Your task to perform on an android device: Go to CNN.com Image 0: 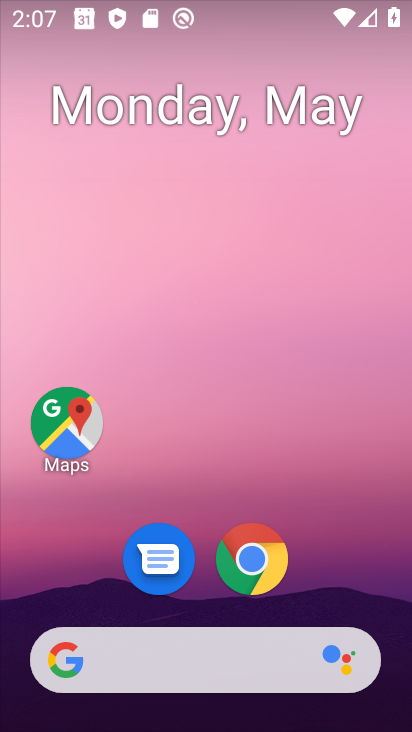
Step 0: click (260, 562)
Your task to perform on an android device: Go to CNN.com Image 1: 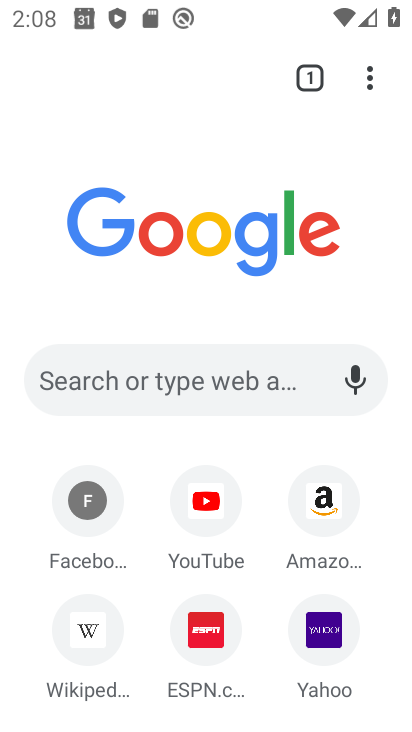
Step 1: click (121, 383)
Your task to perform on an android device: Go to CNN.com Image 2: 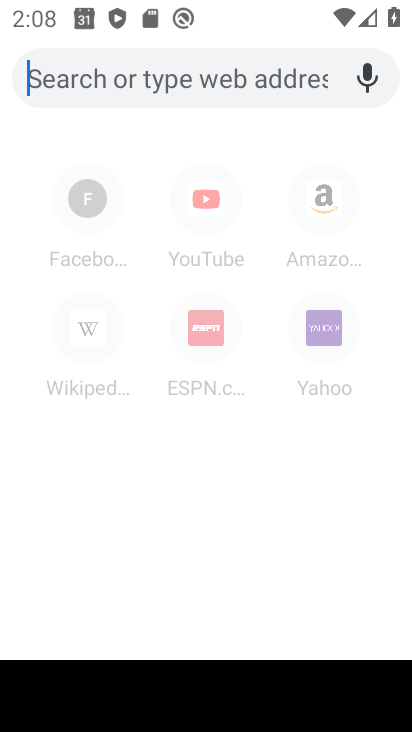
Step 2: type "cnn.com"
Your task to perform on an android device: Go to CNN.com Image 3: 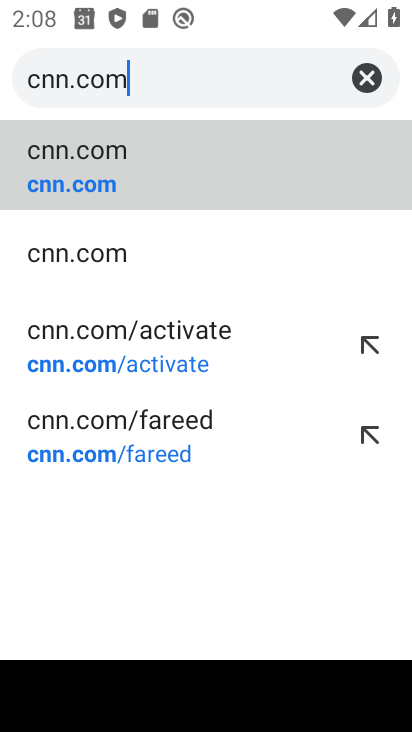
Step 3: click (65, 161)
Your task to perform on an android device: Go to CNN.com Image 4: 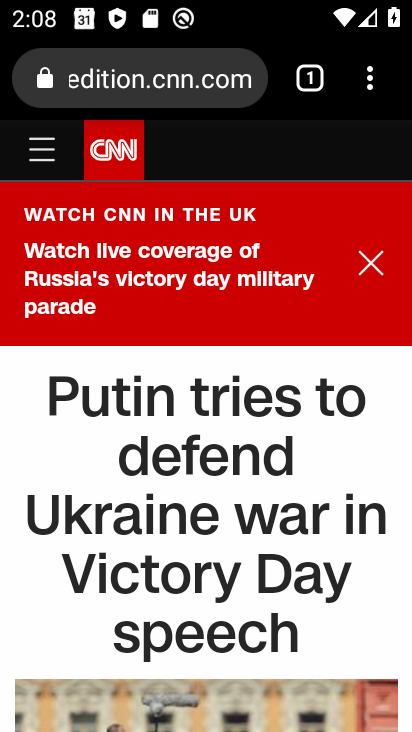
Step 4: task complete